Your task to perform on an android device: change the clock display to show seconds Image 0: 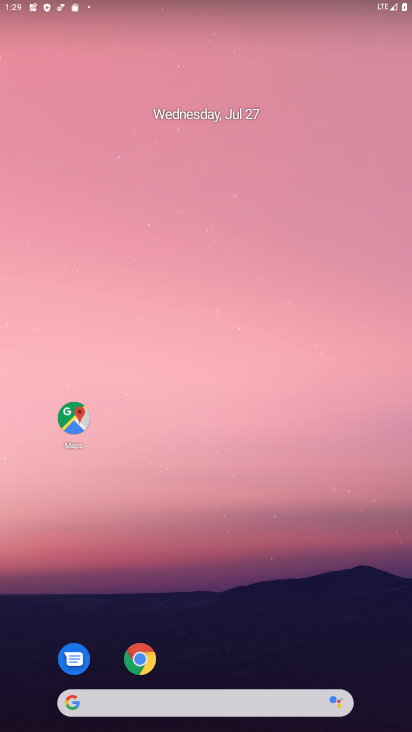
Step 0: drag from (237, 698) to (237, 158)
Your task to perform on an android device: change the clock display to show seconds Image 1: 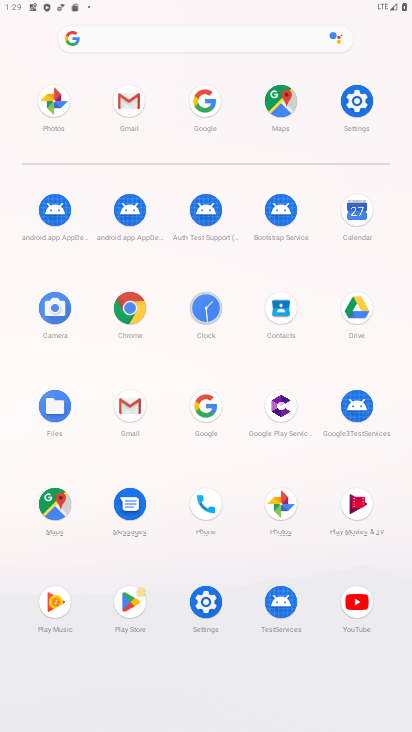
Step 1: click (207, 310)
Your task to perform on an android device: change the clock display to show seconds Image 2: 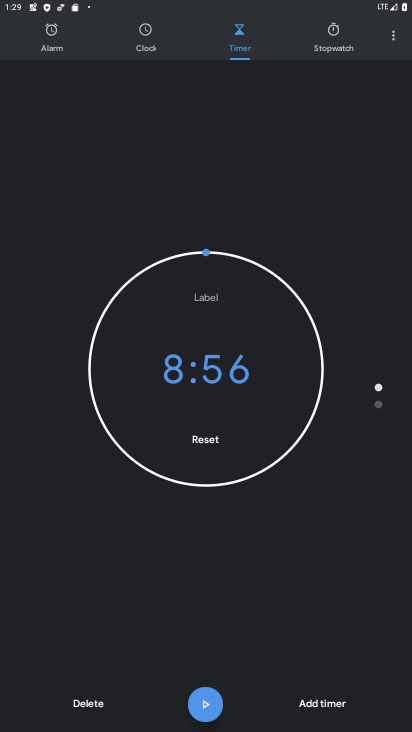
Step 2: click (393, 36)
Your task to perform on an android device: change the clock display to show seconds Image 3: 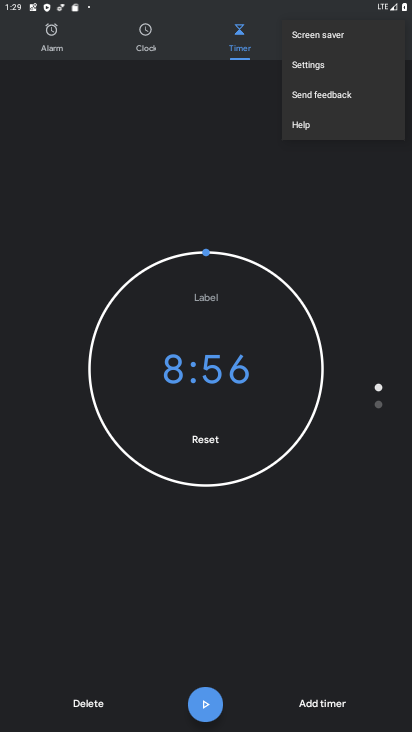
Step 3: click (308, 60)
Your task to perform on an android device: change the clock display to show seconds Image 4: 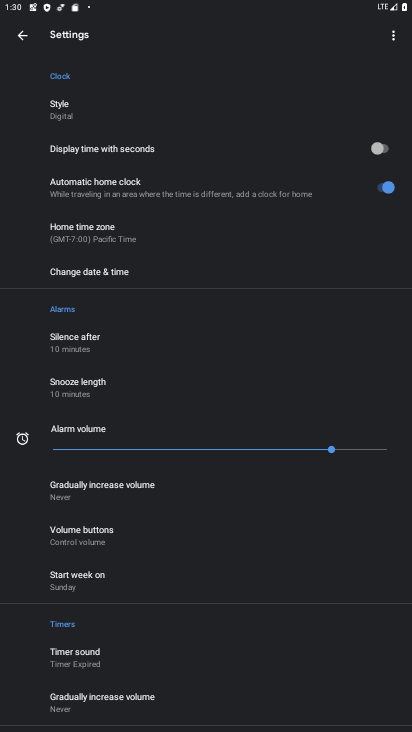
Step 4: click (383, 150)
Your task to perform on an android device: change the clock display to show seconds Image 5: 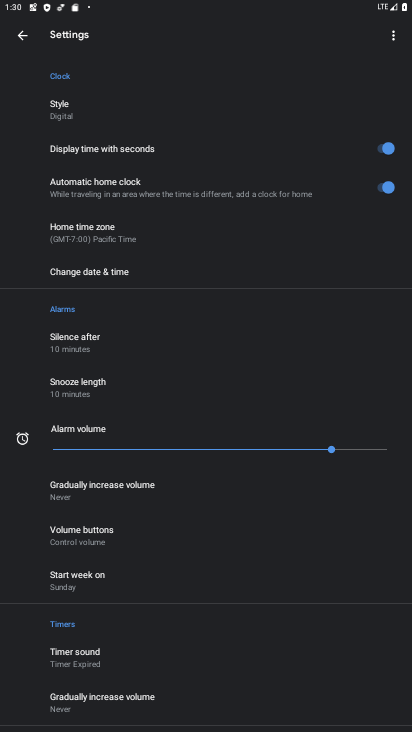
Step 5: task complete